Your task to perform on an android device: Clear all items from cart on costco. Add "usb-a" to the cart on costco, then select checkout. Image 0: 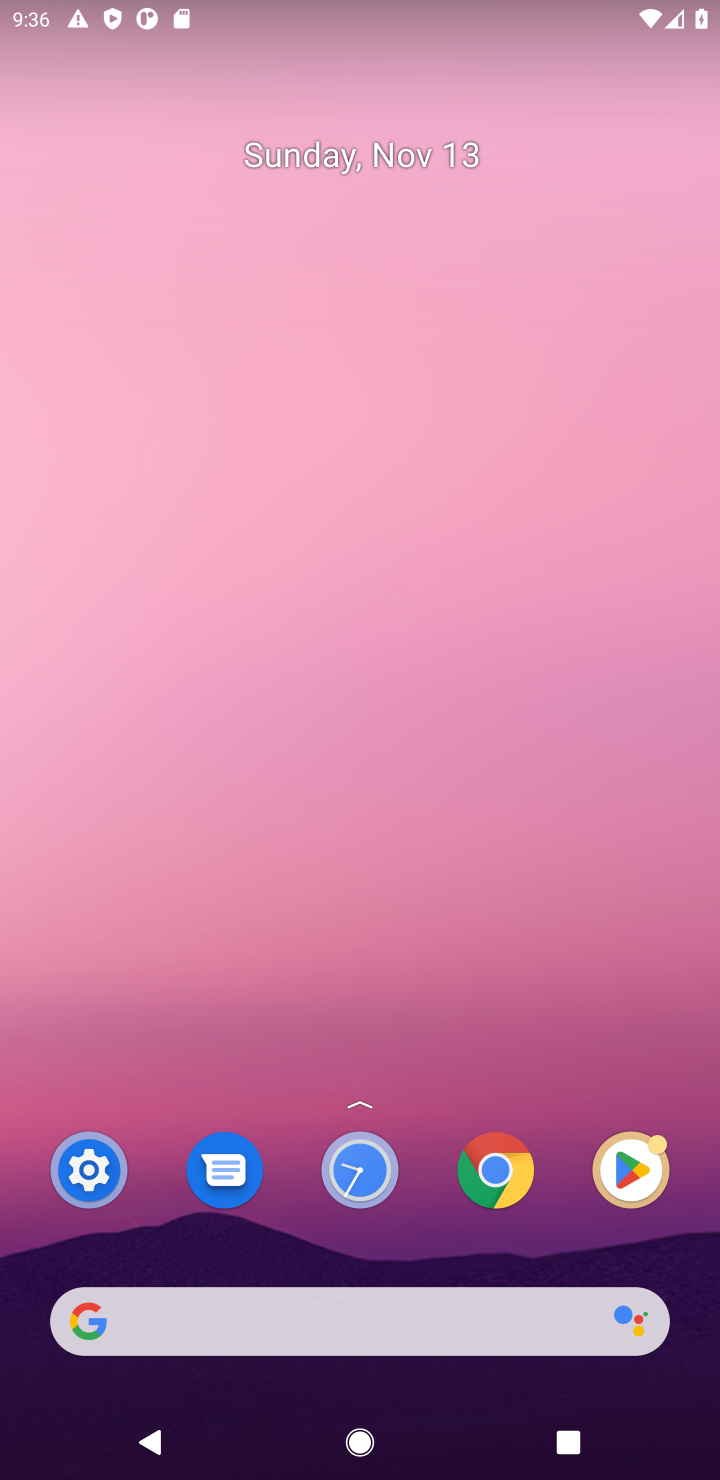
Step 0: click (420, 1339)
Your task to perform on an android device: Clear all items from cart on costco. Add "usb-a" to the cart on costco, then select checkout. Image 1: 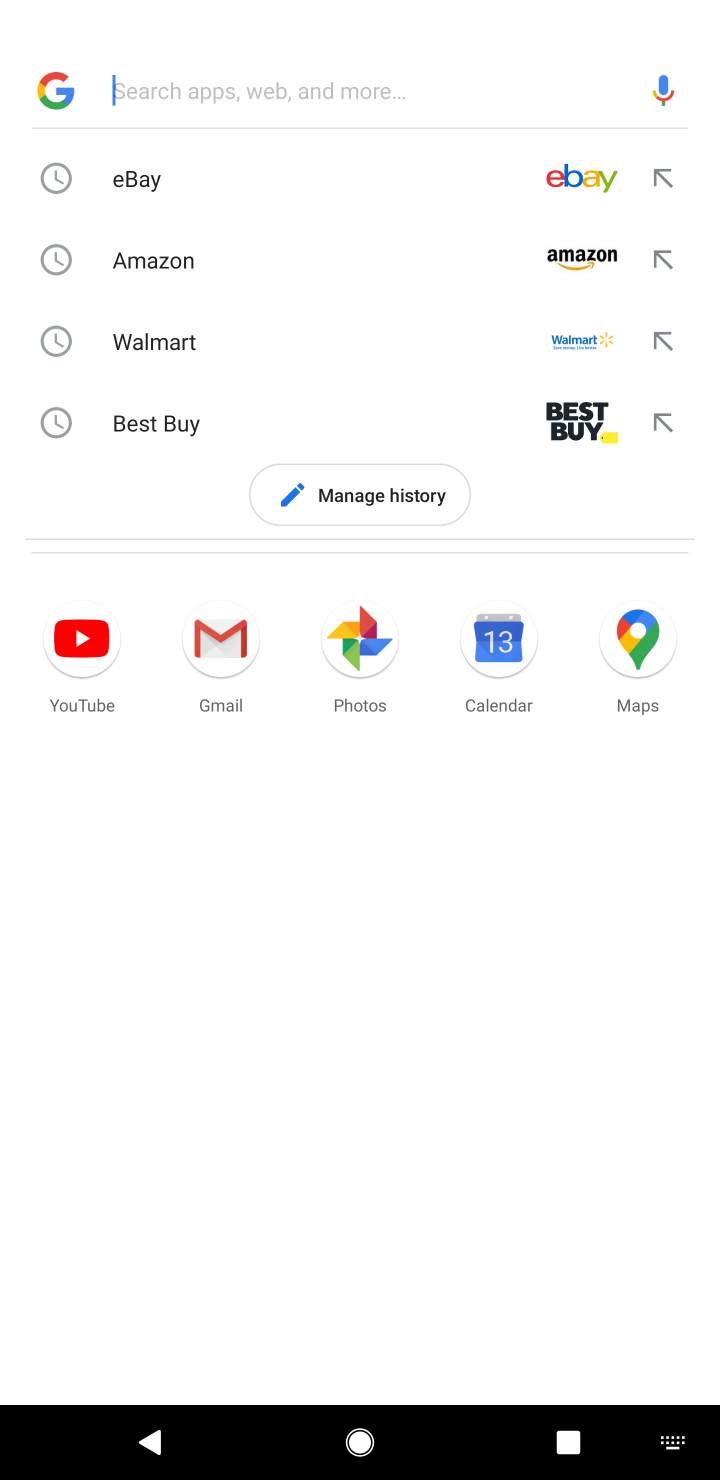
Step 1: type "costco.com"
Your task to perform on an android device: Clear all items from cart on costco. Add "usb-a" to the cart on costco, then select checkout. Image 2: 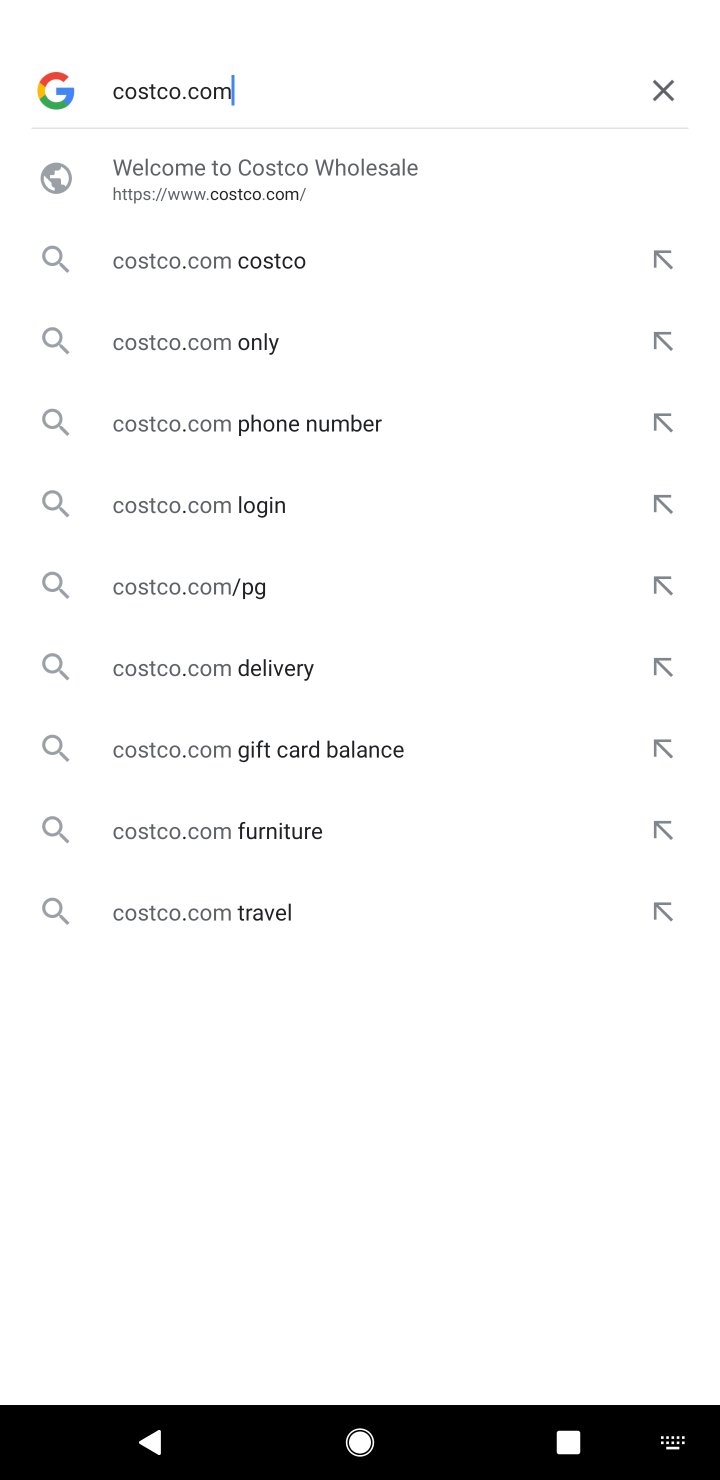
Step 2: click (357, 210)
Your task to perform on an android device: Clear all items from cart on costco. Add "usb-a" to the cart on costco, then select checkout. Image 3: 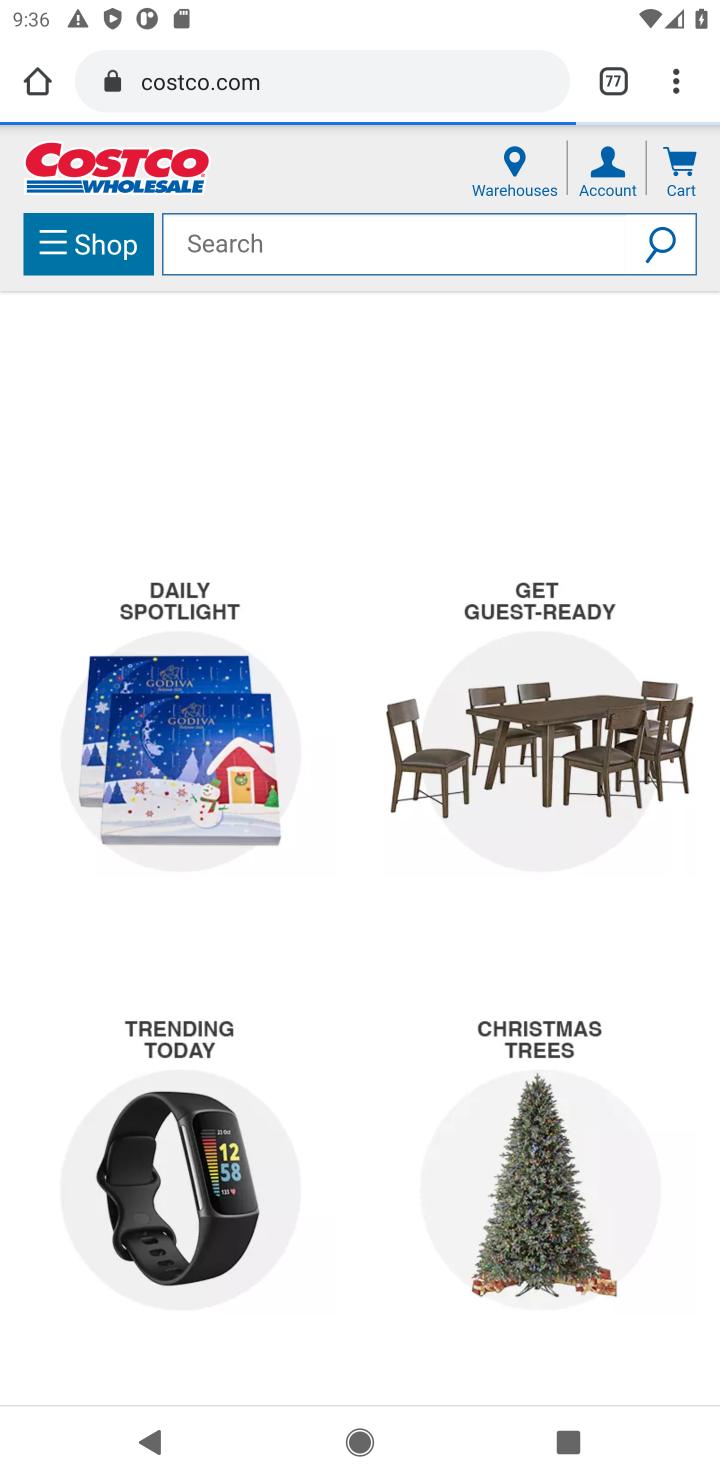
Step 3: task complete